Your task to perform on an android device: Show me popular videos on Youtube Image 0: 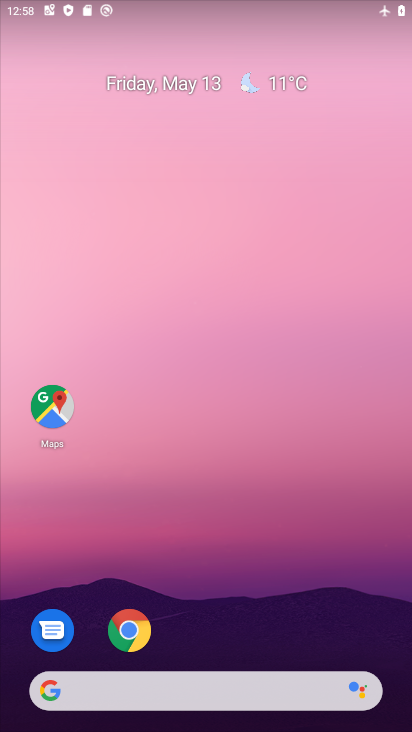
Step 0: drag from (339, 628) to (374, 25)
Your task to perform on an android device: Show me popular videos on Youtube Image 1: 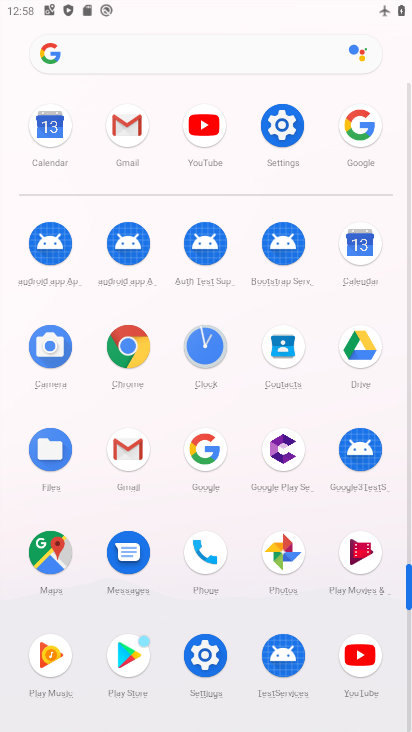
Step 1: click (194, 133)
Your task to perform on an android device: Show me popular videos on Youtube Image 2: 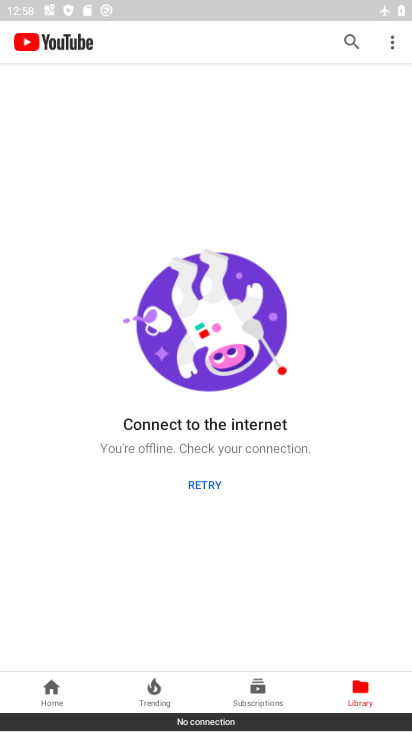
Step 2: click (45, 690)
Your task to perform on an android device: Show me popular videos on Youtube Image 3: 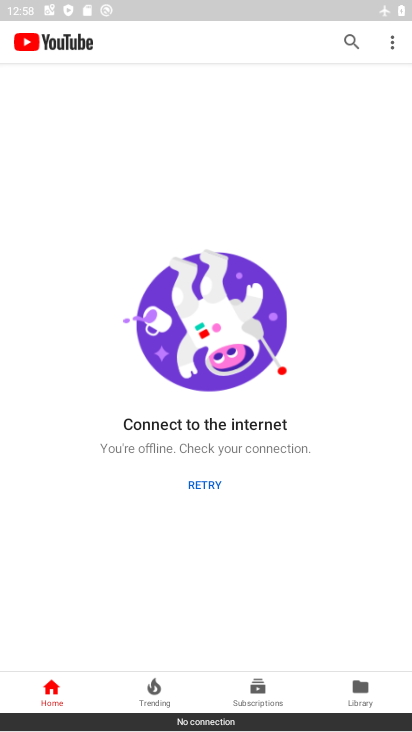
Step 3: task complete